Your task to perform on an android device: turn on translation in the chrome app Image 0: 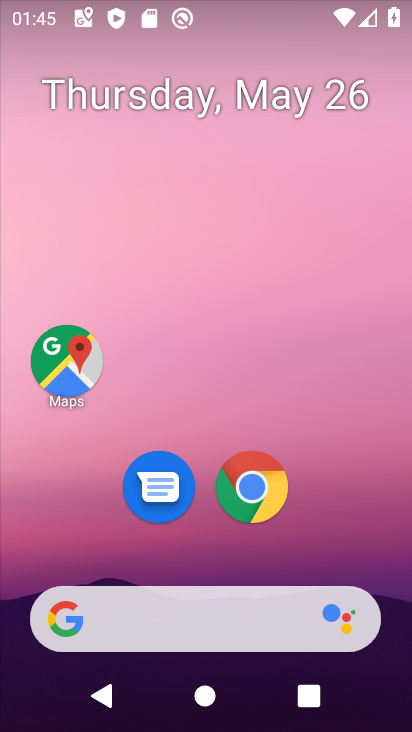
Step 0: click (254, 508)
Your task to perform on an android device: turn on translation in the chrome app Image 1: 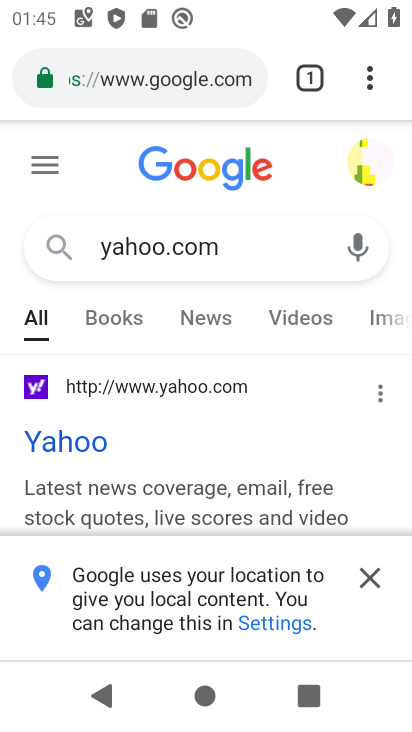
Step 1: drag from (367, 75) to (119, 542)
Your task to perform on an android device: turn on translation in the chrome app Image 2: 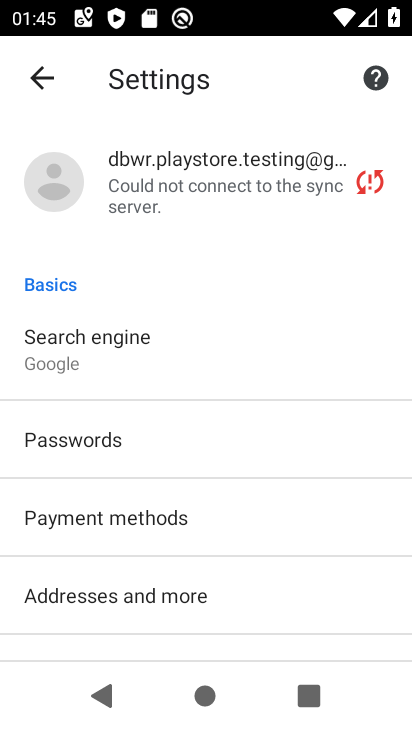
Step 2: drag from (142, 493) to (127, 93)
Your task to perform on an android device: turn on translation in the chrome app Image 3: 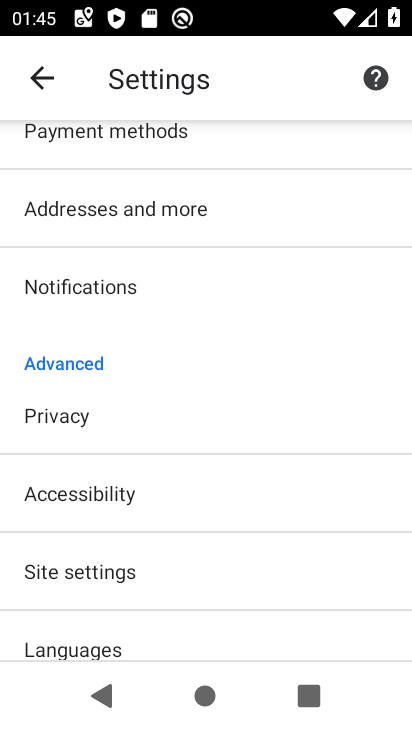
Step 3: drag from (159, 569) to (174, 50)
Your task to perform on an android device: turn on translation in the chrome app Image 4: 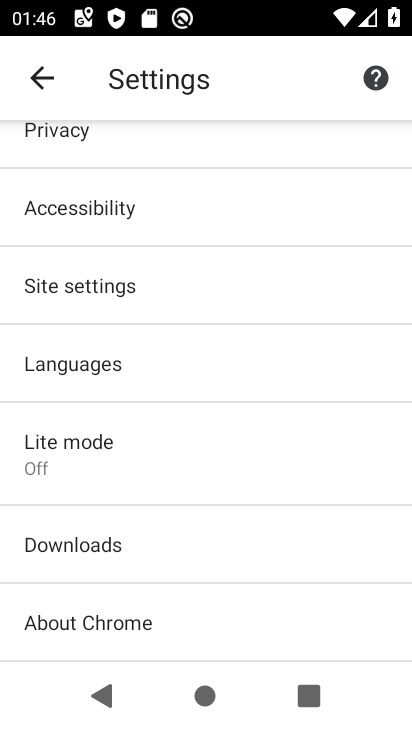
Step 4: click (125, 370)
Your task to perform on an android device: turn on translation in the chrome app Image 5: 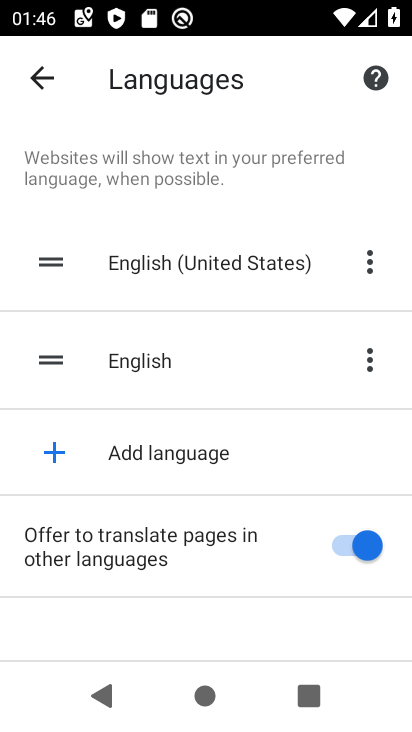
Step 5: task complete